Your task to perform on an android device: Open my contact list Image 0: 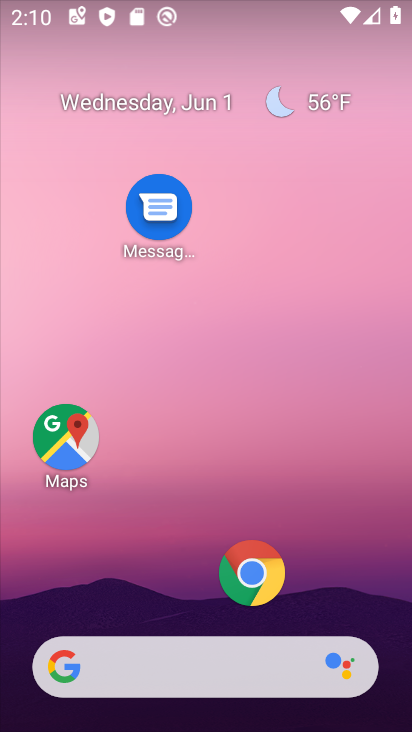
Step 0: click (276, 423)
Your task to perform on an android device: Open my contact list Image 1: 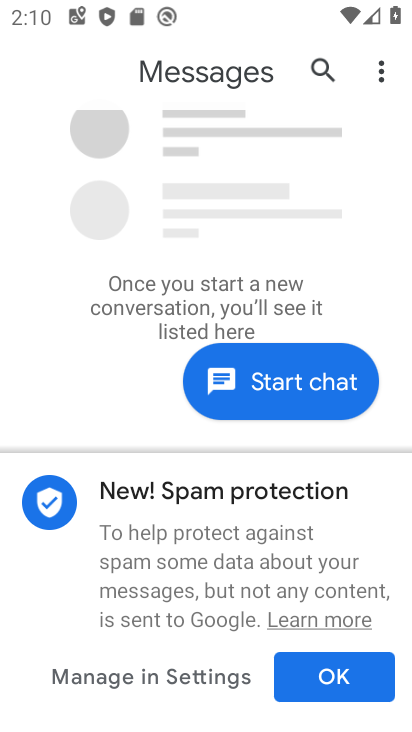
Step 1: drag from (246, 558) to (253, 145)
Your task to perform on an android device: Open my contact list Image 2: 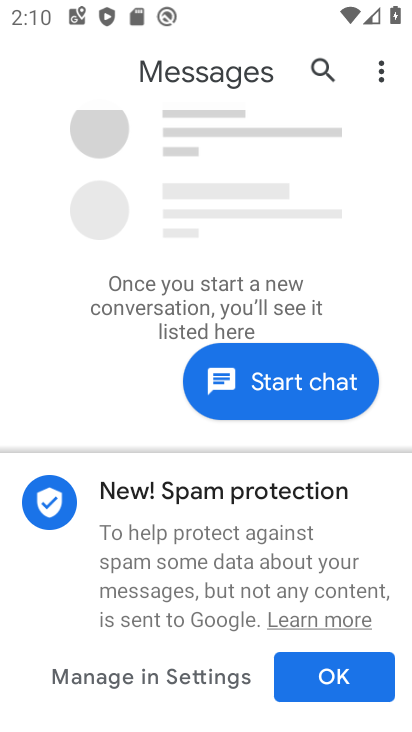
Step 2: press home button
Your task to perform on an android device: Open my contact list Image 3: 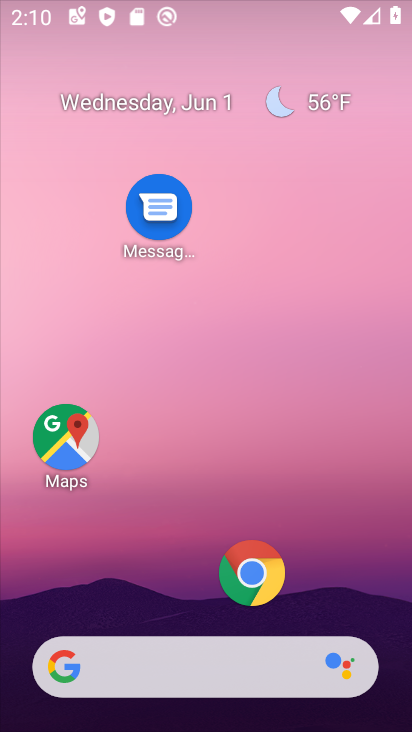
Step 3: drag from (212, 545) to (289, 41)
Your task to perform on an android device: Open my contact list Image 4: 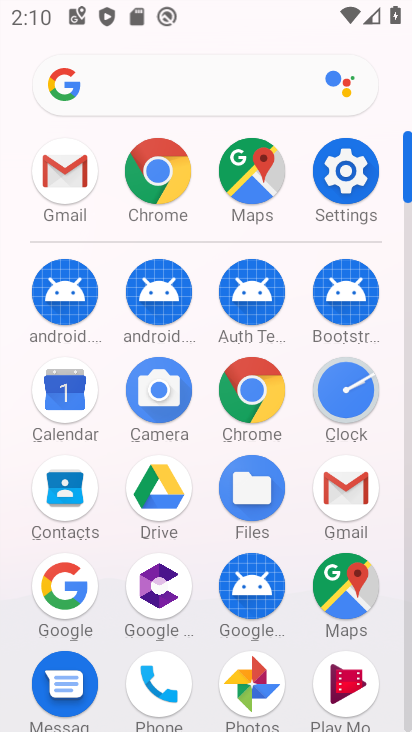
Step 4: click (51, 481)
Your task to perform on an android device: Open my contact list Image 5: 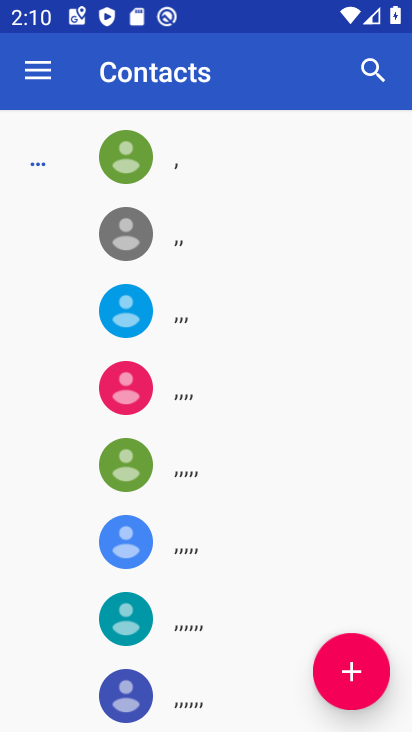
Step 5: task complete